Your task to perform on an android device: View the shopping cart on amazon.com. Image 0: 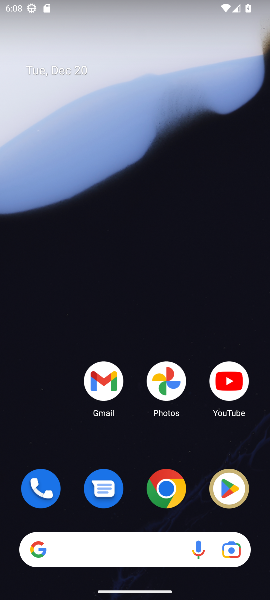
Step 0: press home button
Your task to perform on an android device: View the shopping cart on amazon.com. Image 1: 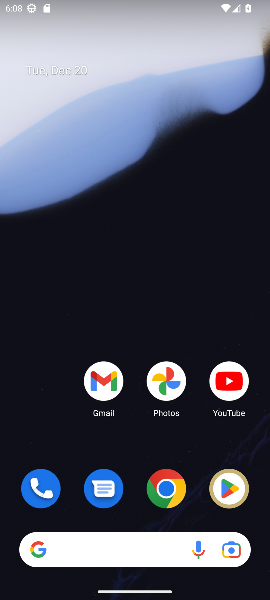
Step 1: drag from (66, 436) to (41, 49)
Your task to perform on an android device: View the shopping cart on amazon.com. Image 2: 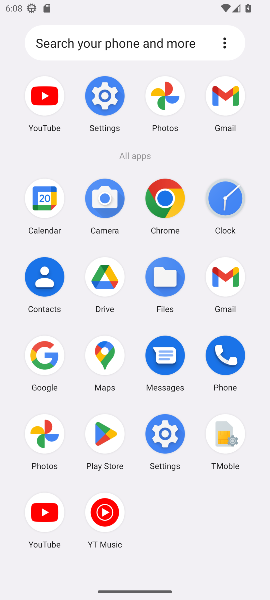
Step 2: click (30, 363)
Your task to perform on an android device: View the shopping cart on amazon.com. Image 3: 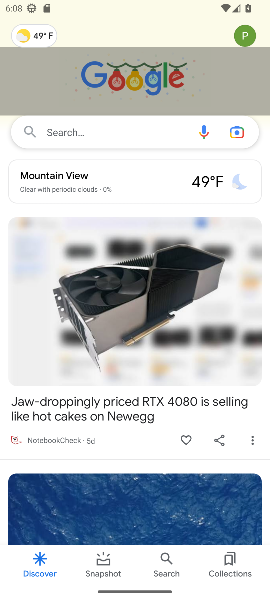
Step 3: click (66, 127)
Your task to perform on an android device: View the shopping cart on amazon.com. Image 4: 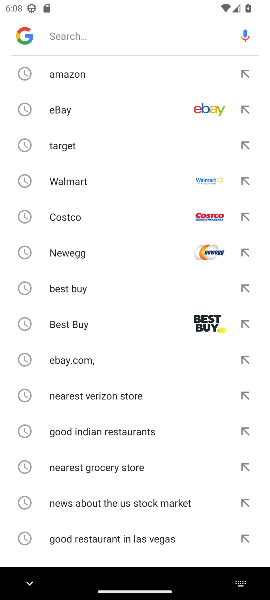
Step 4: type "amazon.com"
Your task to perform on an android device: View the shopping cart on amazon.com. Image 5: 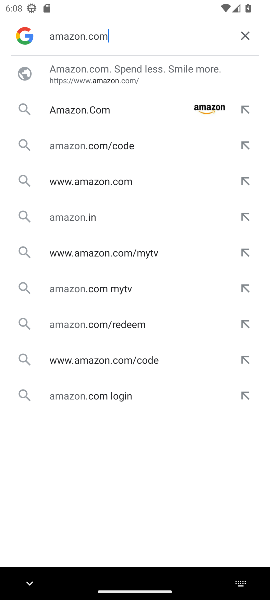
Step 5: press enter
Your task to perform on an android device: View the shopping cart on amazon.com. Image 6: 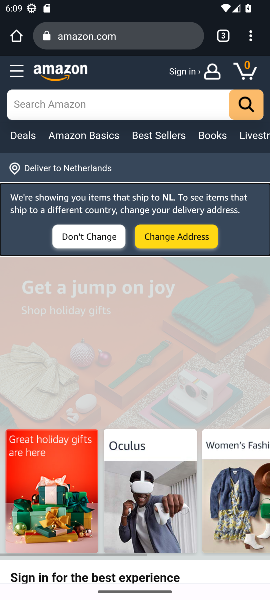
Step 6: click (245, 66)
Your task to perform on an android device: View the shopping cart on amazon.com. Image 7: 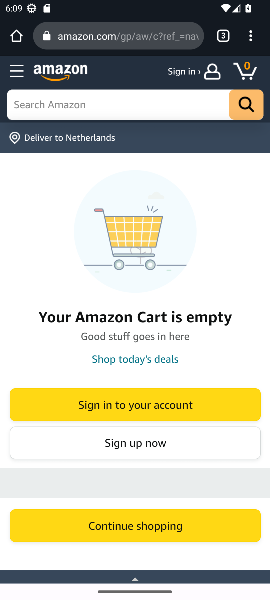
Step 7: task complete